Your task to perform on an android device: turn on priority inbox in the gmail app Image 0: 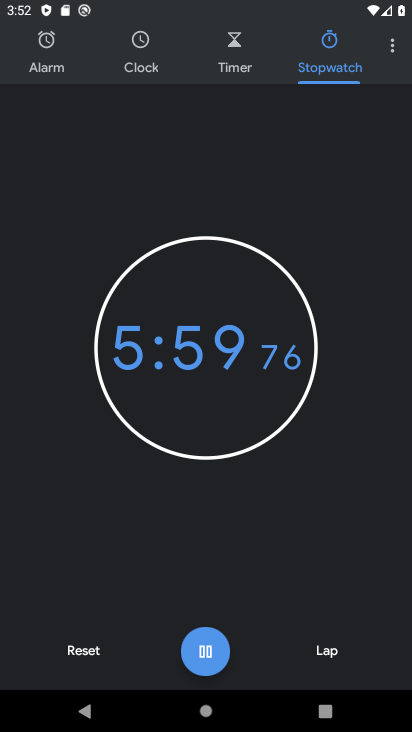
Step 0: press home button
Your task to perform on an android device: turn on priority inbox in the gmail app Image 1: 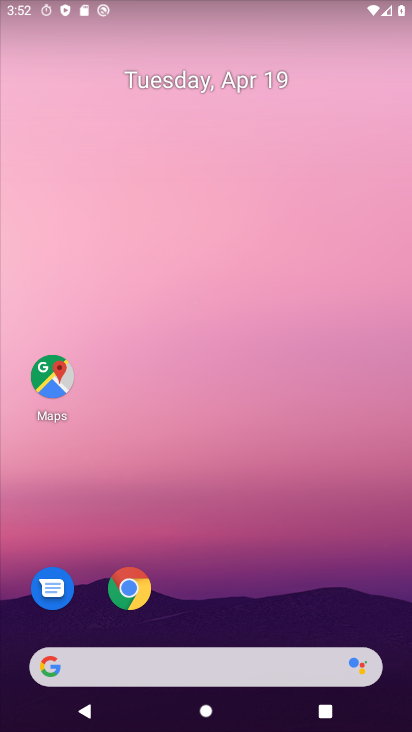
Step 1: drag from (202, 548) to (215, 62)
Your task to perform on an android device: turn on priority inbox in the gmail app Image 2: 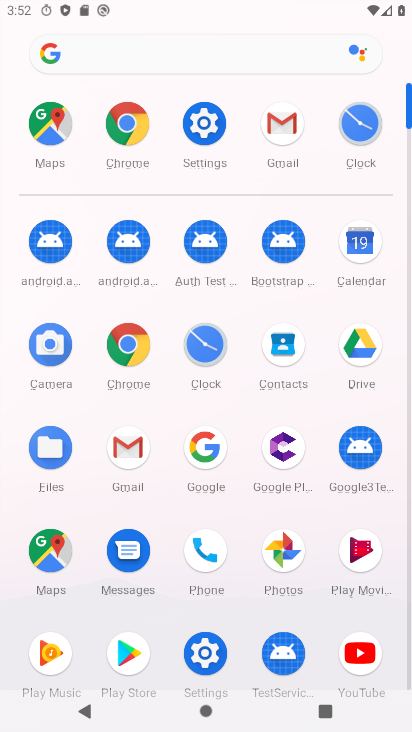
Step 2: click (286, 125)
Your task to perform on an android device: turn on priority inbox in the gmail app Image 3: 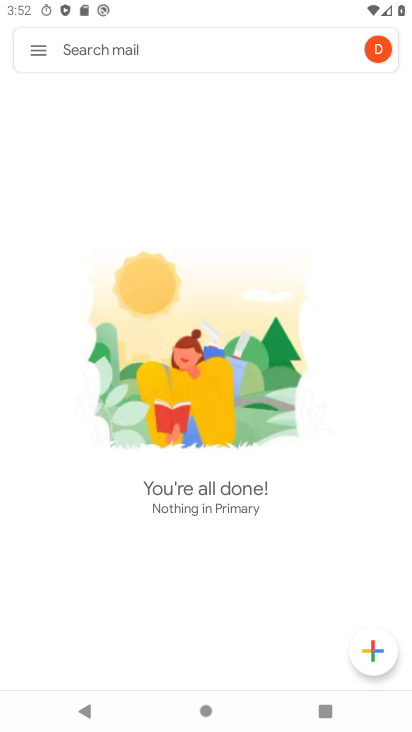
Step 3: click (36, 51)
Your task to perform on an android device: turn on priority inbox in the gmail app Image 4: 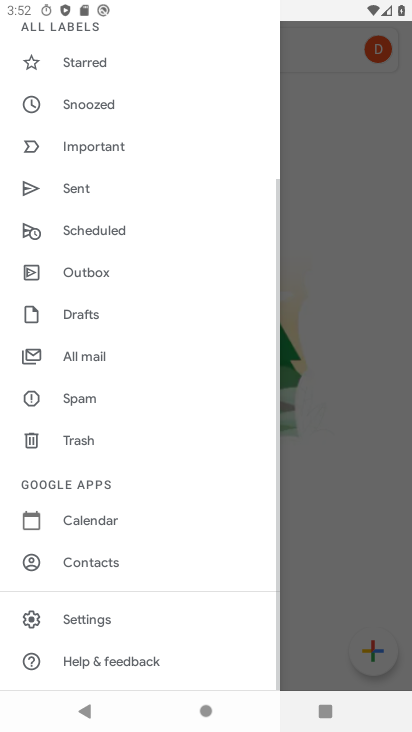
Step 4: click (114, 608)
Your task to perform on an android device: turn on priority inbox in the gmail app Image 5: 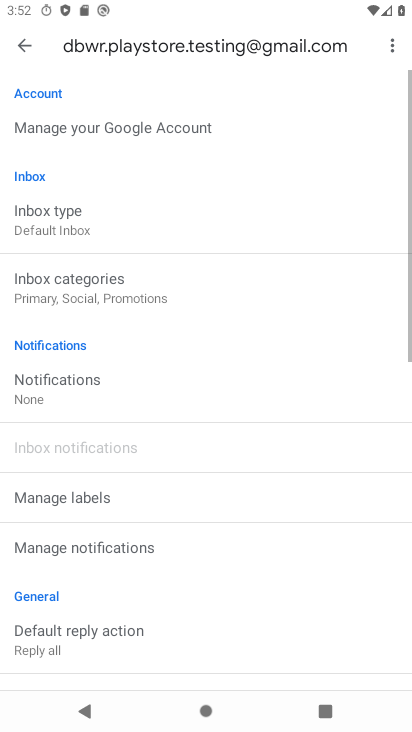
Step 5: click (88, 215)
Your task to perform on an android device: turn on priority inbox in the gmail app Image 6: 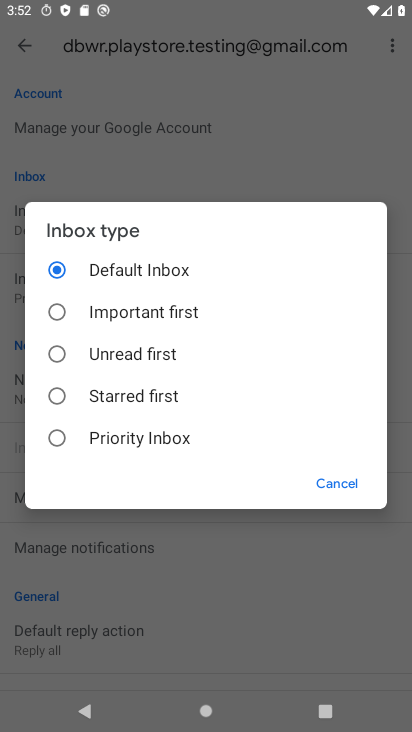
Step 6: click (146, 442)
Your task to perform on an android device: turn on priority inbox in the gmail app Image 7: 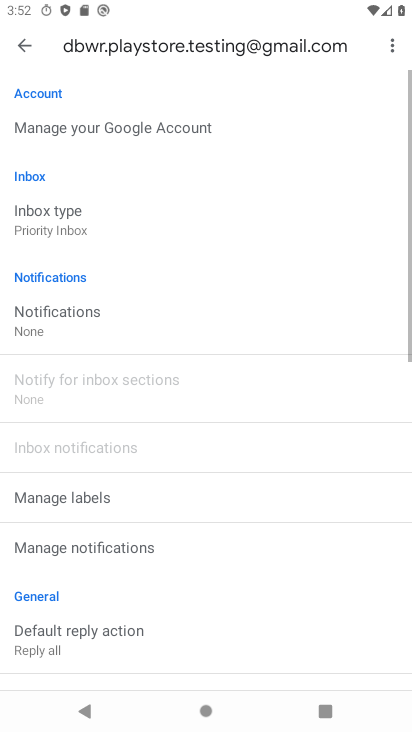
Step 7: task complete